Your task to perform on an android device: turn on sleep mode Image 0: 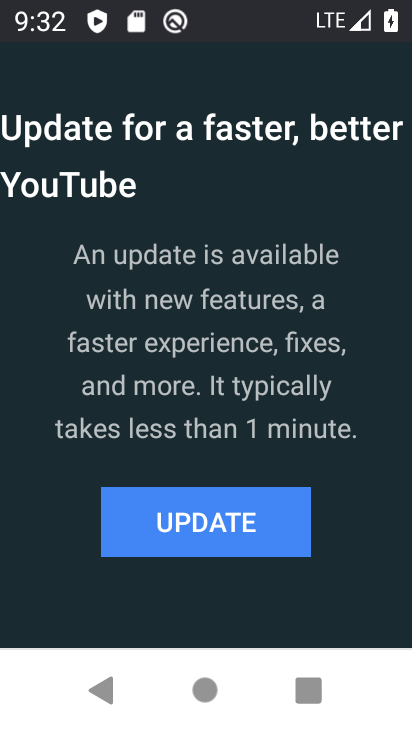
Step 0: press back button
Your task to perform on an android device: turn on sleep mode Image 1: 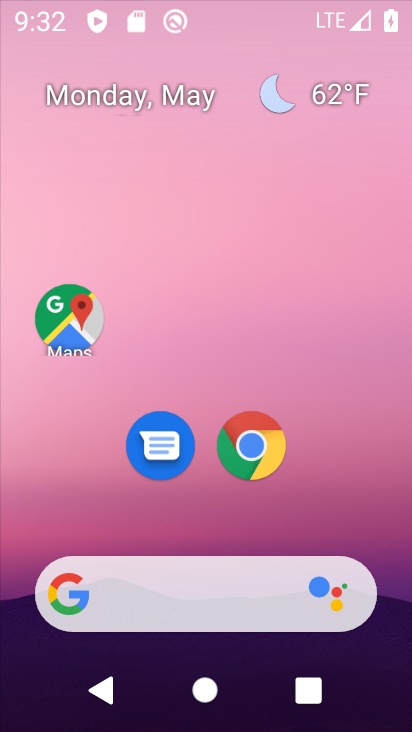
Step 1: drag from (405, 609) to (248, 47)
Your task to perform on an android device: turn on sleep mode Image 2: 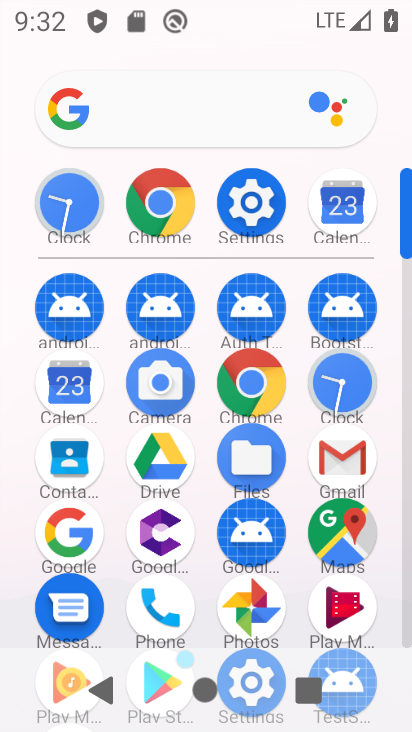
Step 2: click (262, 200)
Your task to perform on an android device: turn on sleep mode Image 3: 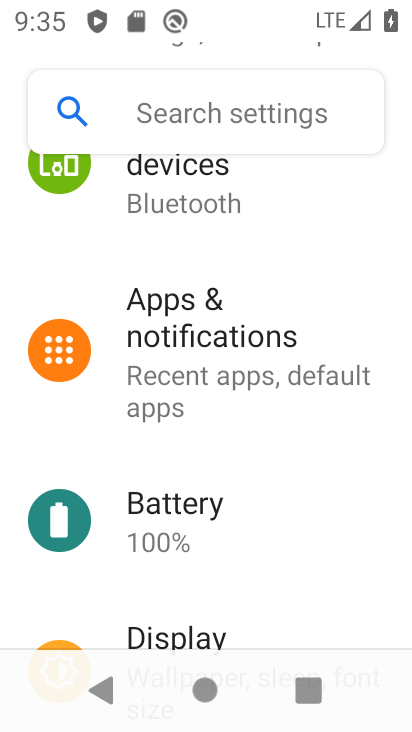
Step 3: task complete